Your task to perform on an android device: move a message to another label in the gmail app Image 0: 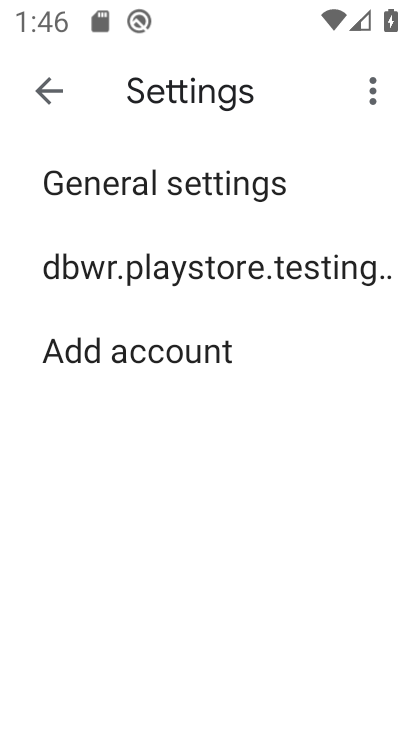
Step 0: press back button
Your task to perform on an android device: move a message to another label in the gmail app Image 1: 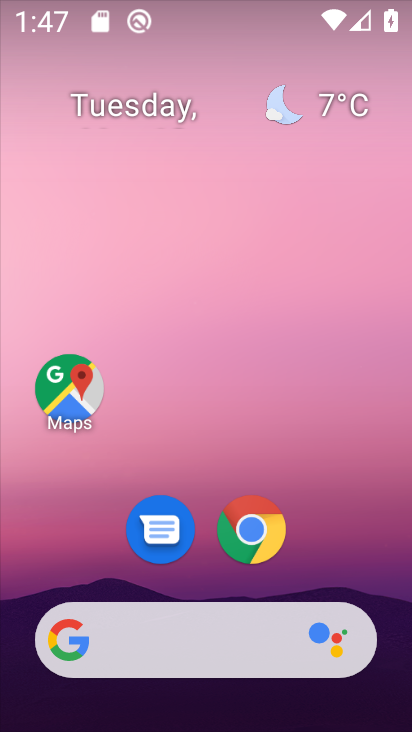
Step 1: drag from (331, 542) to (232, 29)
Your task to perform on an android device: move a message to another label in the gmail app Image 2: 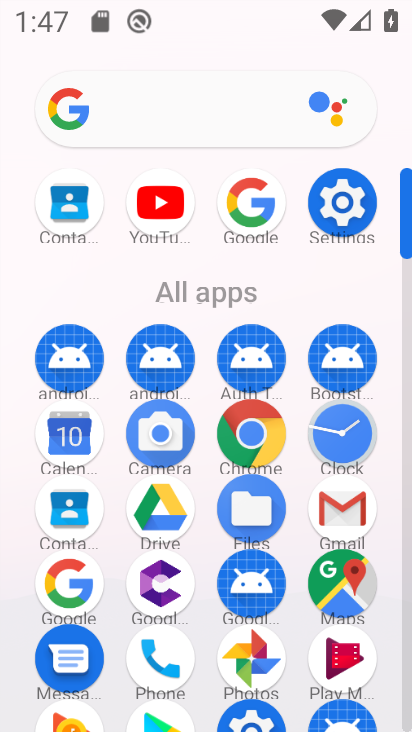
Step 2: click (341, 509)
Your task to perform on an android device: move a message to another label in the gmail app Image 3: 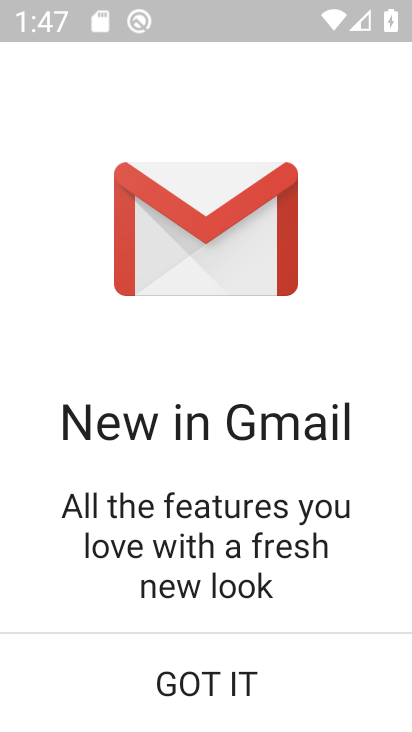
Step 3: click (220, 685)
Your task to perform on an android device: move a message to another label in the gmail app Image 4: 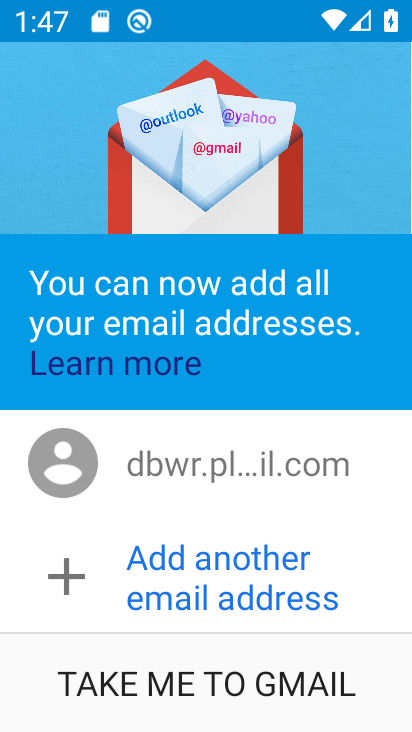
Step 4: click (220, 685)
Your task to perform on an android device: move a message to another label in the gmail app Image 5: 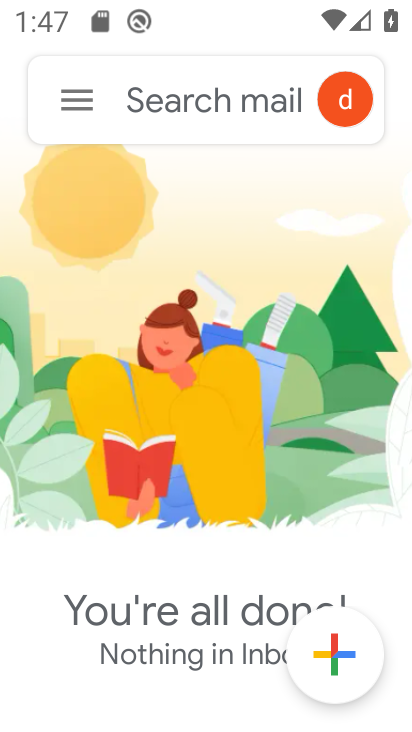
Step 5: click (73, 97)
Your task to perform on an android device: move a message to another label in the gmail app Image 6: 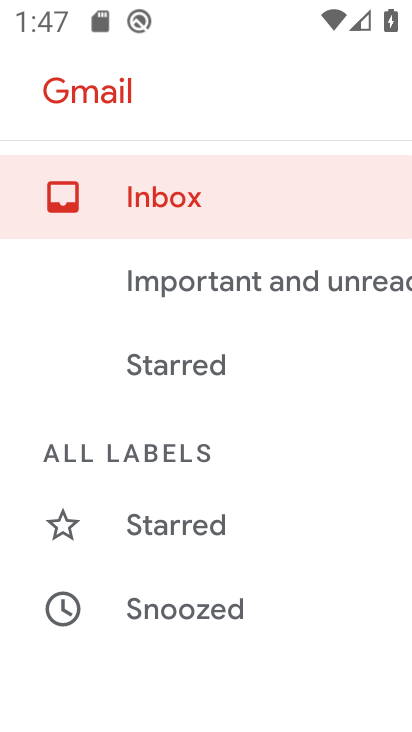
Step 6: drag from (232, 557) to (224, 344)
Your task to perform on an android device: move a message to another label in the gmail app Image 7: 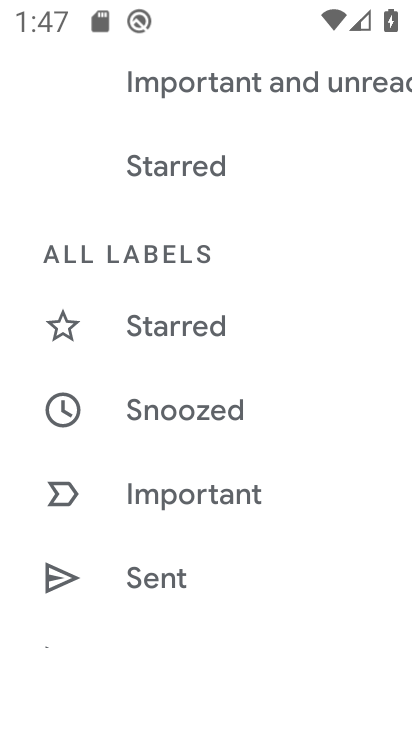
Step 7: drag from (211, 525) to (226, 298)
Your task to perform on an android device: move a message to another label in the gmail app Image 8: 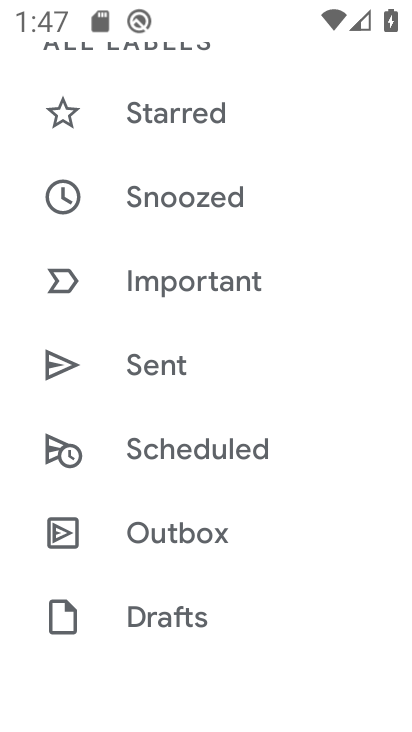
Step 8: drag from (212, 562) to (220, 418)
Your task to perform on an android device: move a message to another label in the gmail app Image 9: 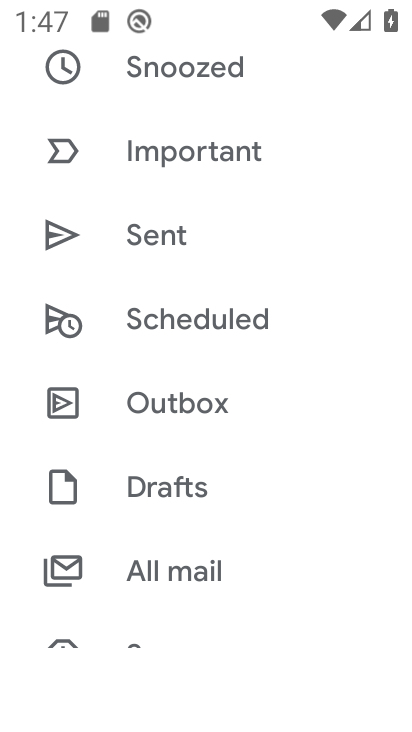
Step 9: drag from (226, 556) to (240, 407)
Your task to perform on an android device: move a message to another label in the gmail app Image 10: 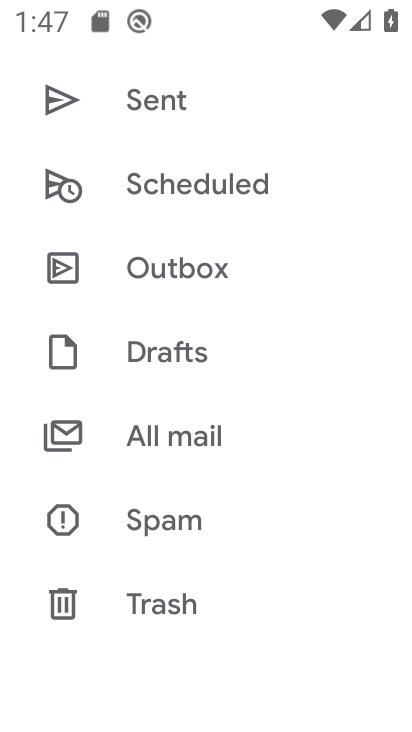
Step 10: drag from (207, 502) to (234, 397)
Your task to perform on an android device: move a message to another label in the gmail app Image 11: 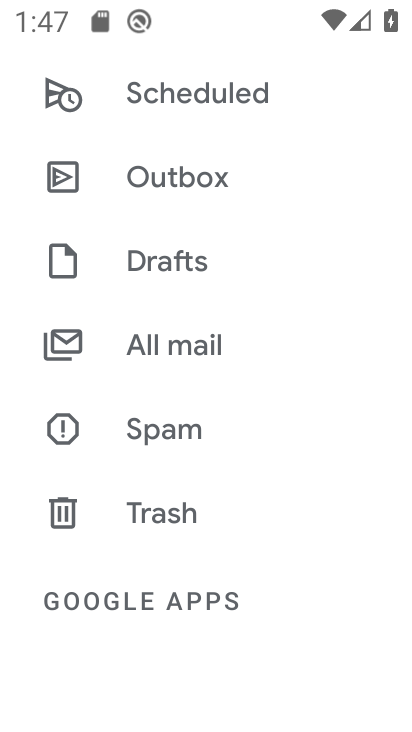
Step 11: drag from (208, 412) to (233, 359)
Your task to perform on an android device: move a message to another label in the gmail app Image 12: 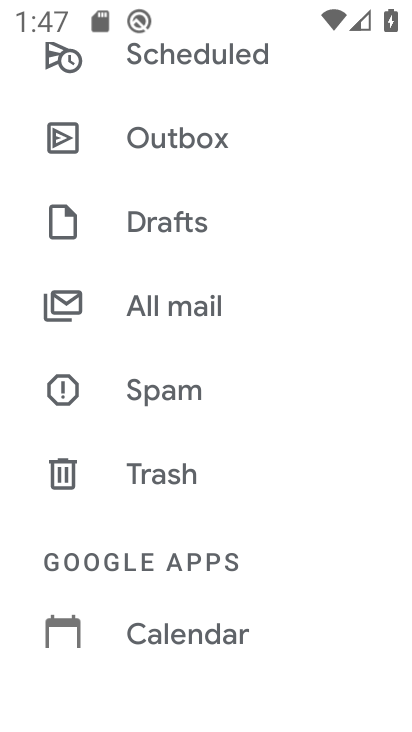
Step 12: drag from (223, 495) to (244, 372)
Your task to perform on an android device: move a message to another label in the gmail app Image 13: 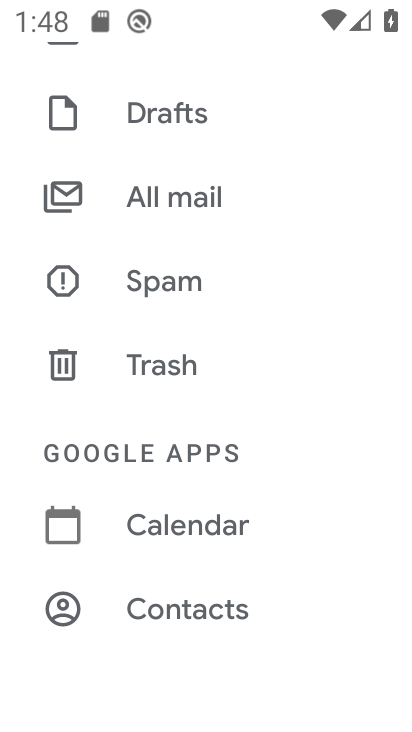
Step 13: click (182, 204)
Your task to perform on an android device: move a message to another label in the gmail app Image 14: 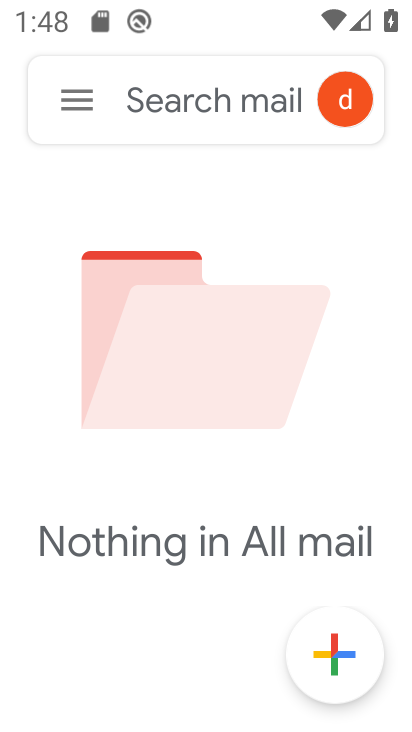
Step 14: click (85, 92)
Your task to perform on an android device: move a message to another label in the gmail app Image 15: 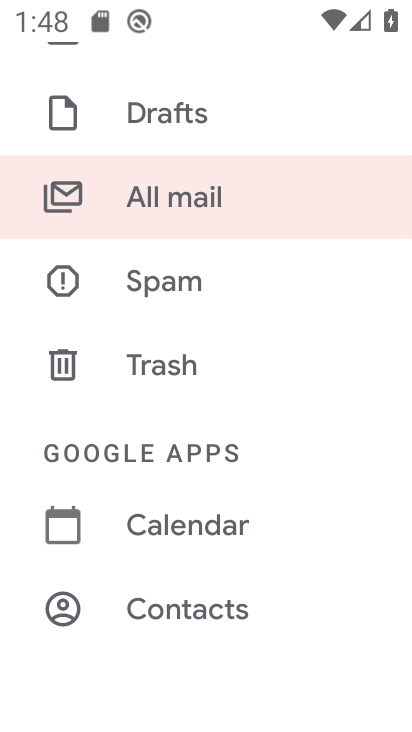
Step 15: drag from (200, 267) to (237, 504)
Your task to perform on an android device: move a message to another label in the gmail app Image 16: 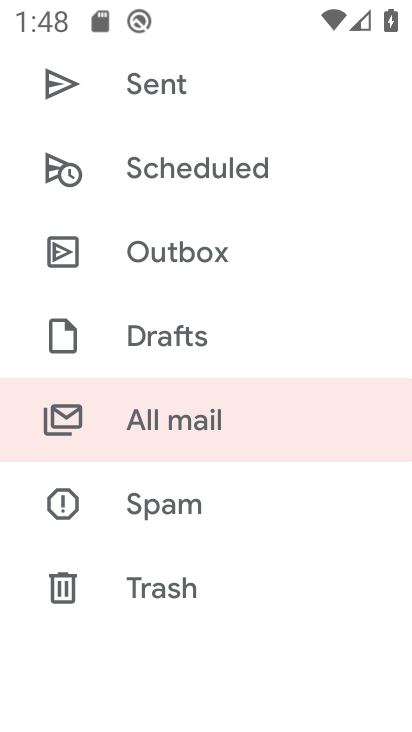
Step 16: drag from (282, 257) to (310, 473)
Your task to perform on an android device: move a message to another label in the gmail app Image 17: 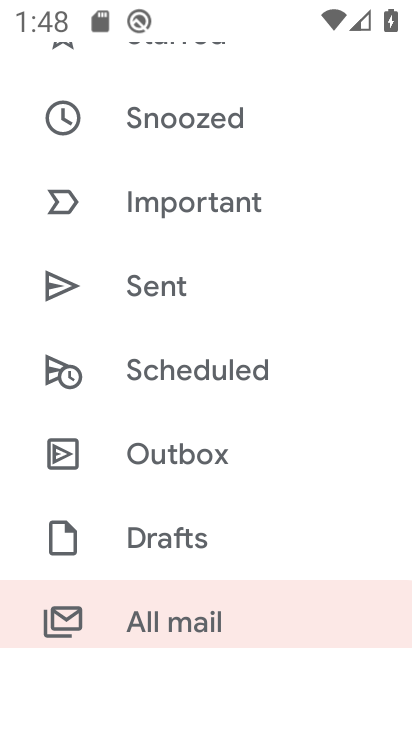
Step 17: drag from (271, 228) to (245, 479)
Your task to perform on an android device: move a message to another label in the gmail app Image 18: 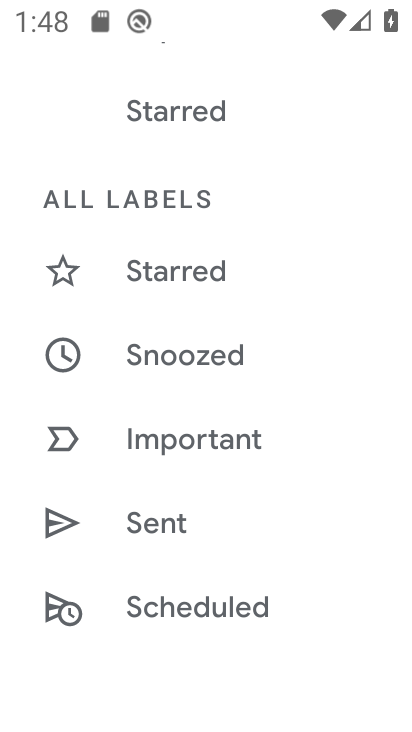
Step 18: drag from (236, 262) to (278, 434)
Your task to perform on an android device: move a message to another label in the gmail app Image 19: 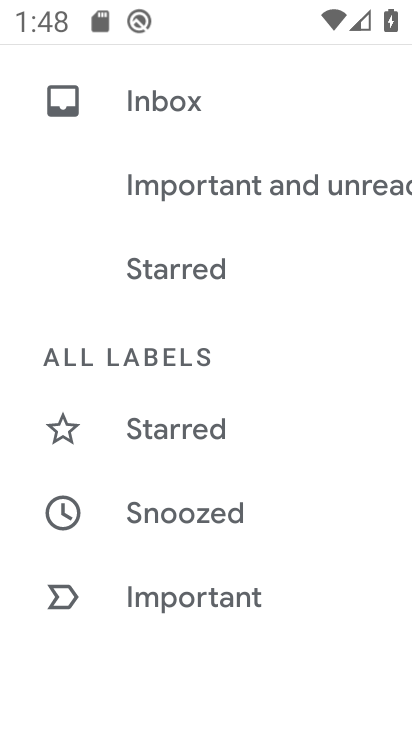
Step 19: drag from (251, 237) to (276, 419)
Your task to perform on an android device: move a message to another label in the gmail app Image 20: 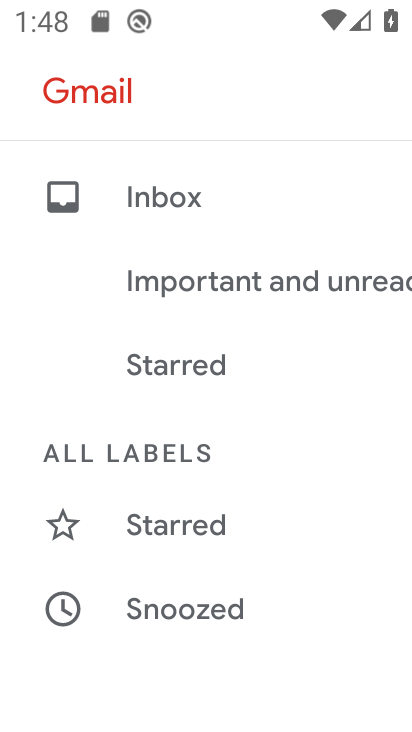
Step 20: click (168, 204)
Your task to perform on an android device: move a message to another label in the gmail app Image 21: 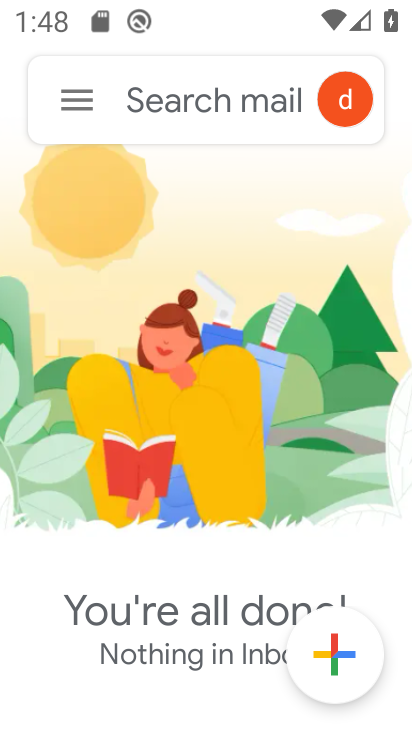
Step 21: task complete